Your task to perform on an android device: change the clock style Image 0: 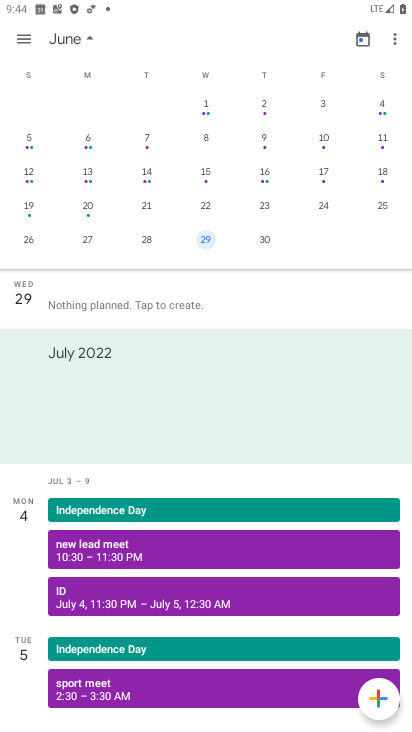
Step 0: press home button
Your task to perform on an android device: change the clock style Image 1: 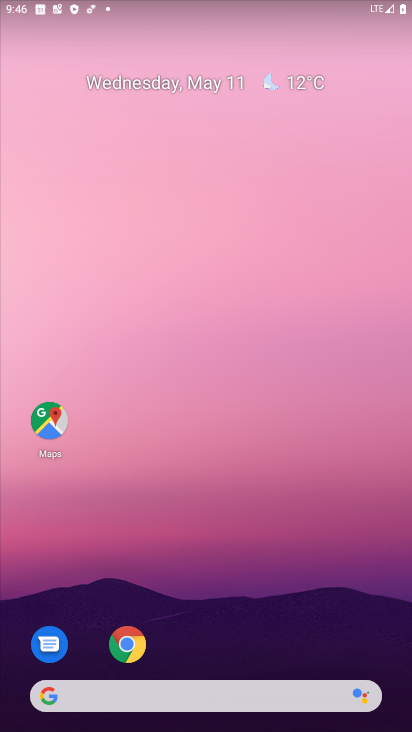
Step 1: drag from (332, 577) to (330, 22)
Your task to perform on an android device: change the clock style Image 2: 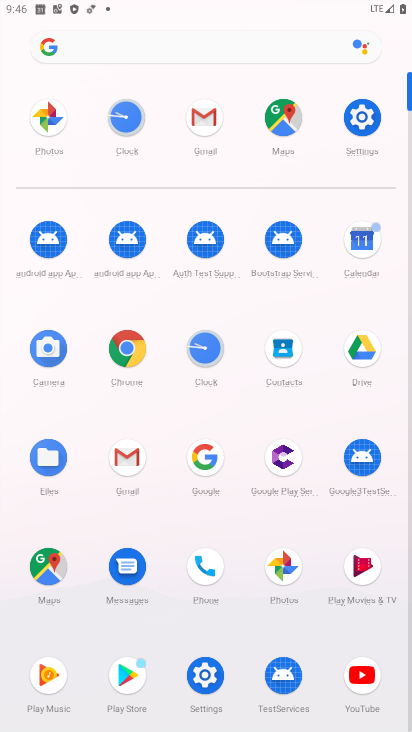
Step 2: click (123, 143)
Your task to perform on an android device: change the clock style Image 3: 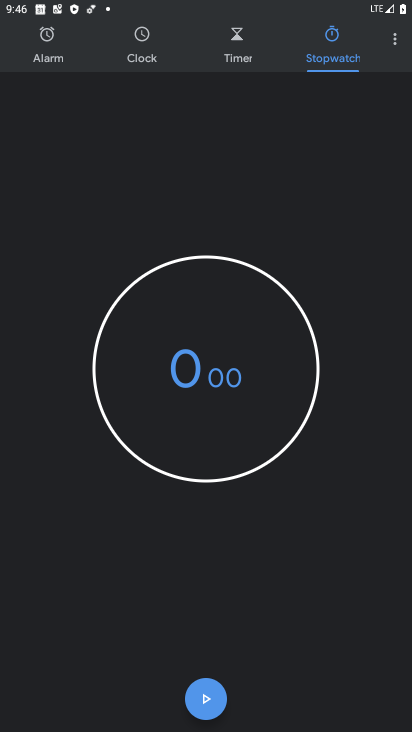
Step 3: click (401, 38)
Your task to perform on an android device: change the clock style Image 4: 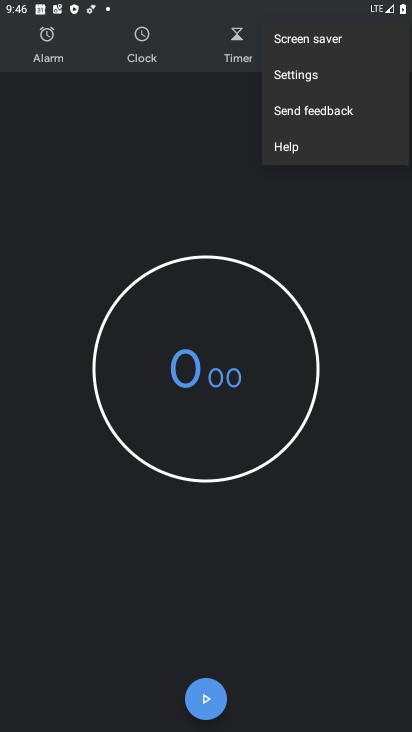
Step 4: click (329, 85)
Your task to perform on an android device: change the clock style Image 5: 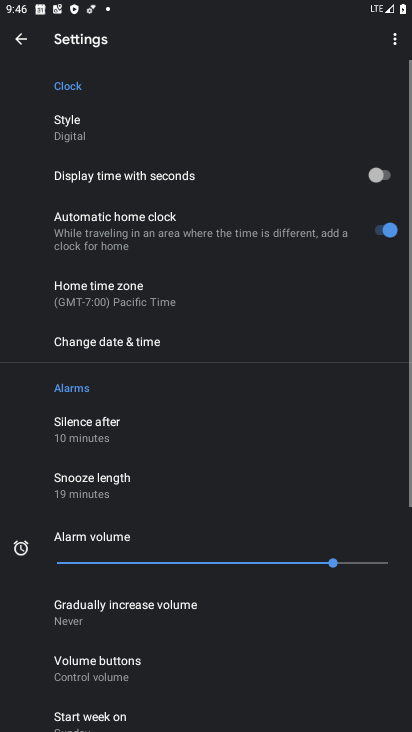
Step 5: click (151, 134)
Your task to perform on an android device: change the clock style Image 6: 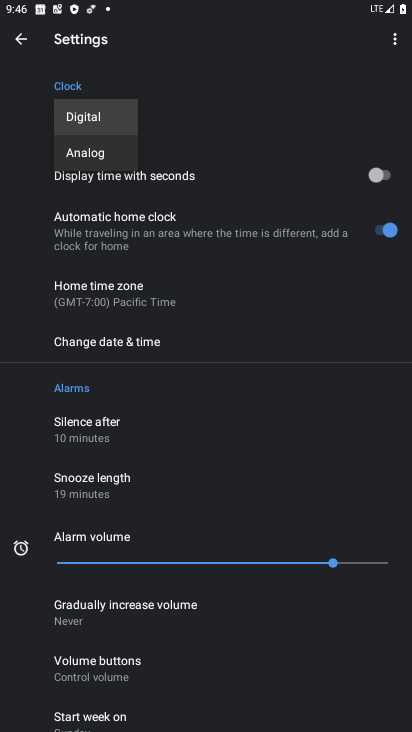
Step 6: click (109, 161)
Your task to perform on an android device: change the clock style Image 7: 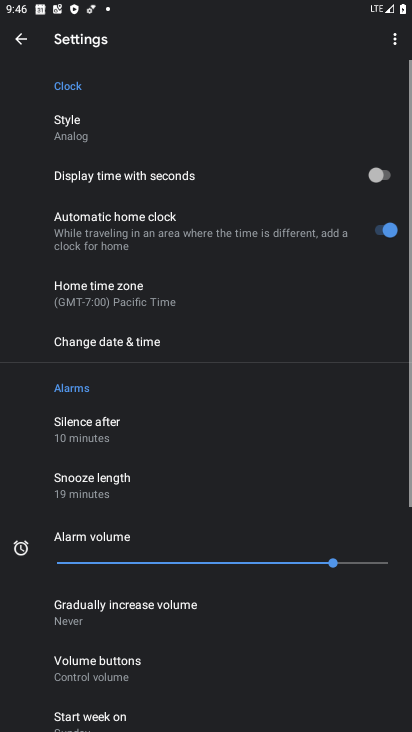
Step 7: task complete